Your task to perform on an android device: toggle airplane mode Image 0: 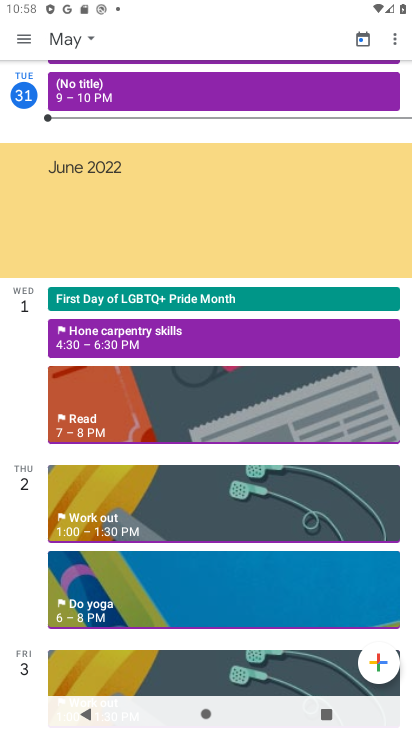
Step 0: press home button
Your task to perform on an android device: toggle airplane mode Image 1: 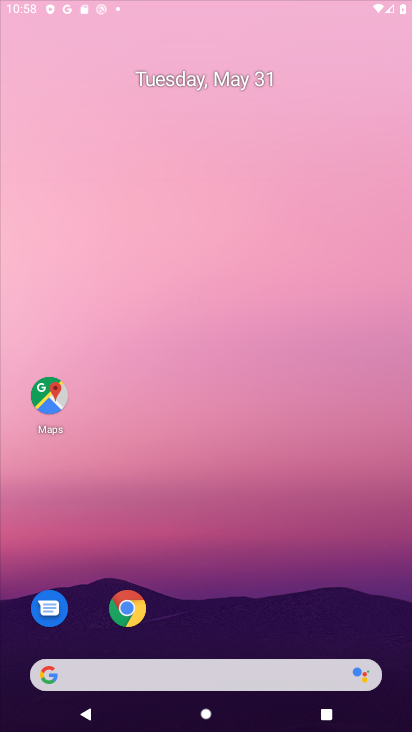
Step 1: drag from (336, 1) to (335, 729)
Your task to perform on an android device: toggle airplane mode Image 2: 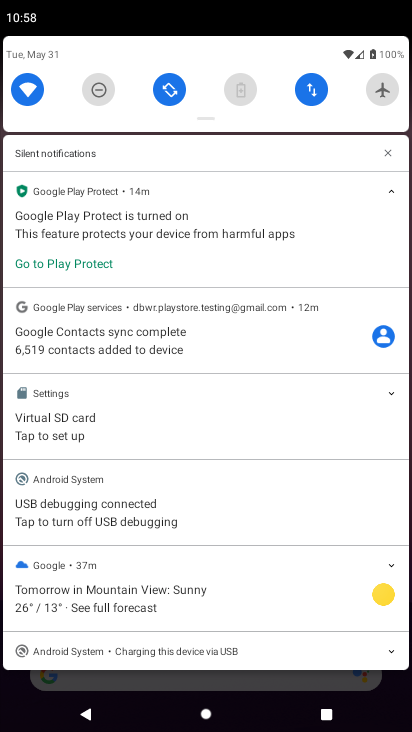
Step 2: click (382, 101)
Your task to perform on an android device: toggle airplane mode Image 3: 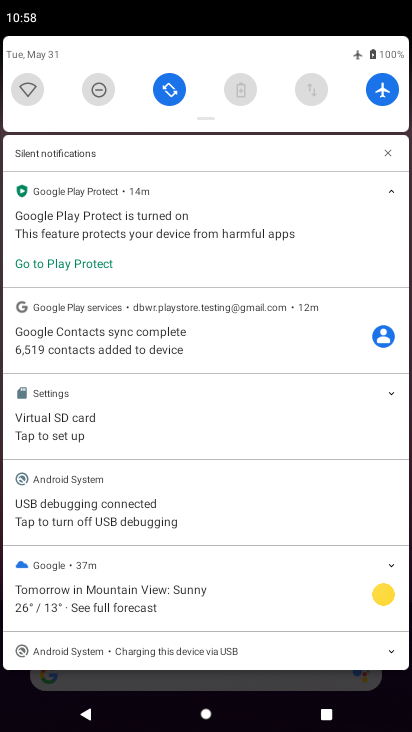
Step 3: task complete